Your task to perform on an android device: check the backup settings in the google photos Image 0: 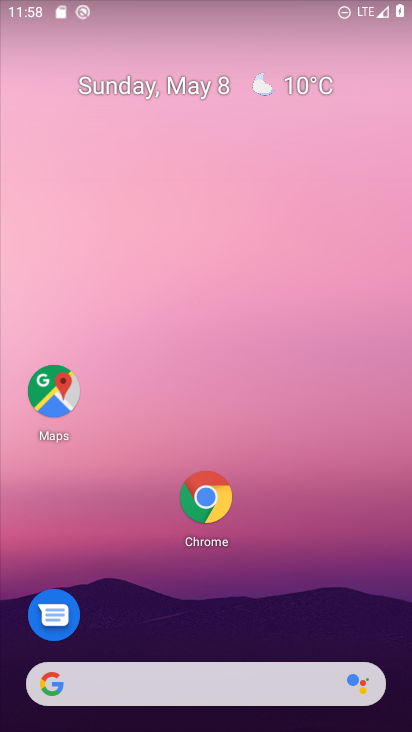
Step 0: drag from (323, 511) to (268, 9)
Your task to perform on an android device: check the backup settings in the google photos Image 1: 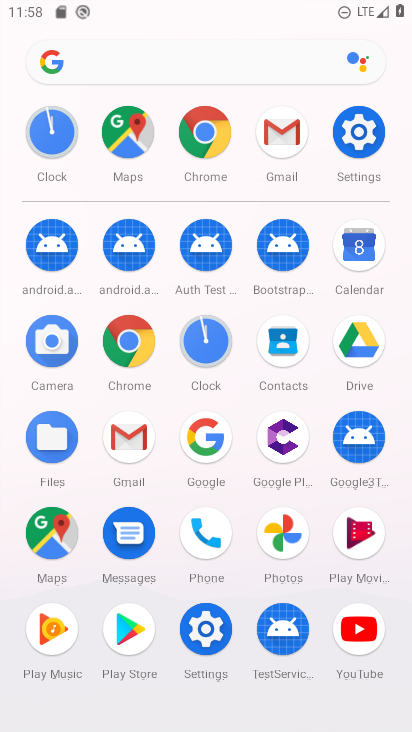
Step 1: click (288, 528)
Your task to perform on an android device: check the backup settings in the google photos Image 2: 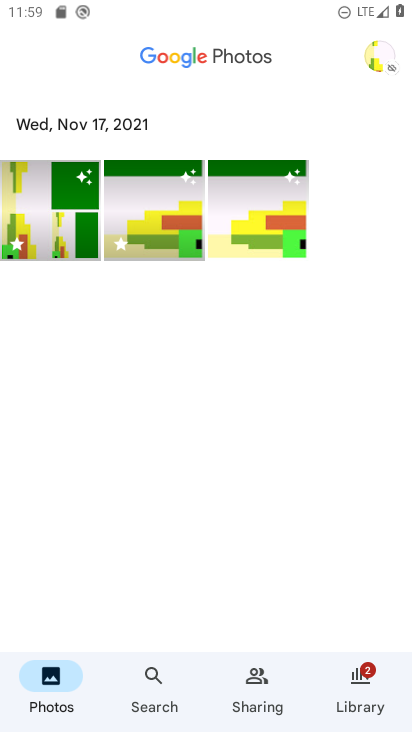
Step 2: click (393, 56)
Your task to perform on an android device: check the backup settings in the google photos Image 3: 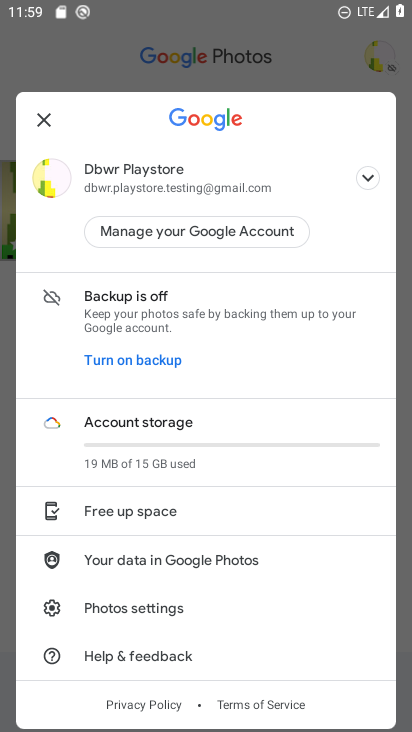
Step 3: click (152, 304)
Your task to perform on an android device: check the backup settings in the google photos Image 4: 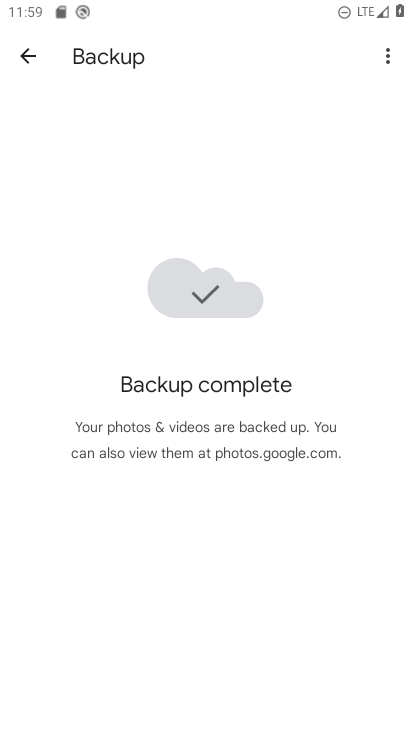
Step 4: click (24, 50)
Your task to perform on an android device: check the backup settings in the google photos Image 5: 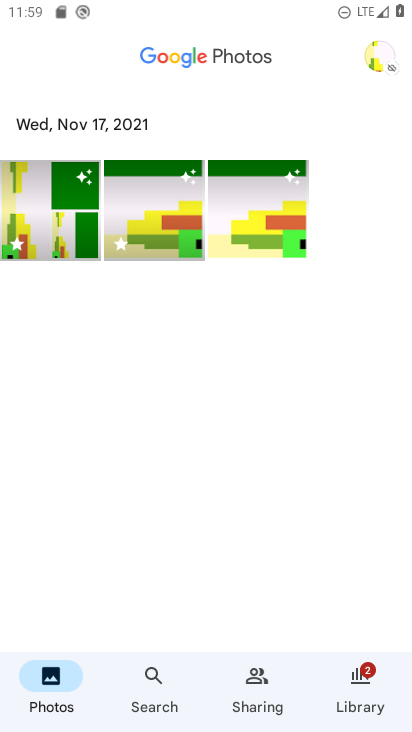
Step 5: click (381, 52)
Your task to perform on an android device: check the backup settings in the google photos Image 6: 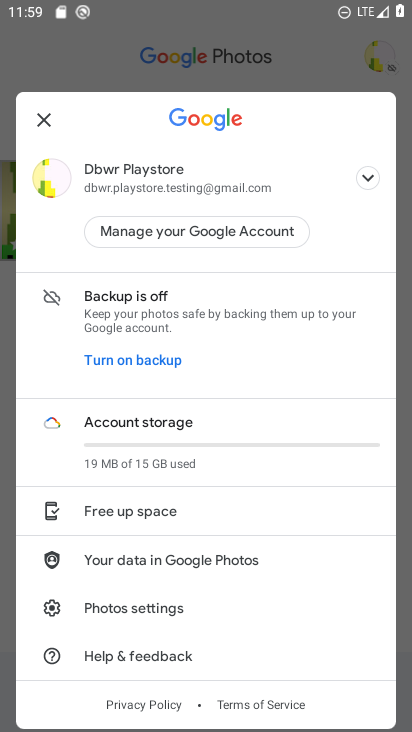
Step 6: click (150, 612)
Your task to perform on an android device: check the backup settings in the google photos Image 7: 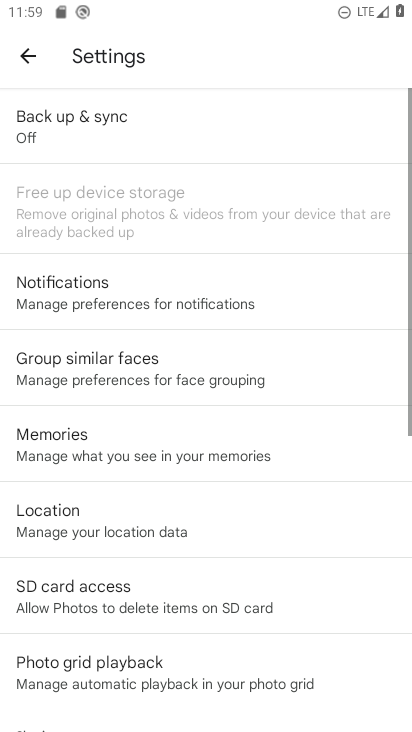
Step 7: click (177, 125)
Your task to perform on an android device: check the backup settings in the google photos Image 8: 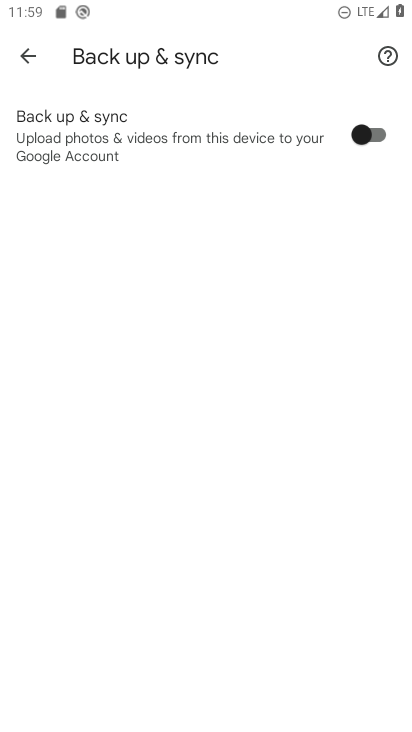
Step 8: task complete